Your task to perform on an android device: open a new tab in the chrome app Image 0: 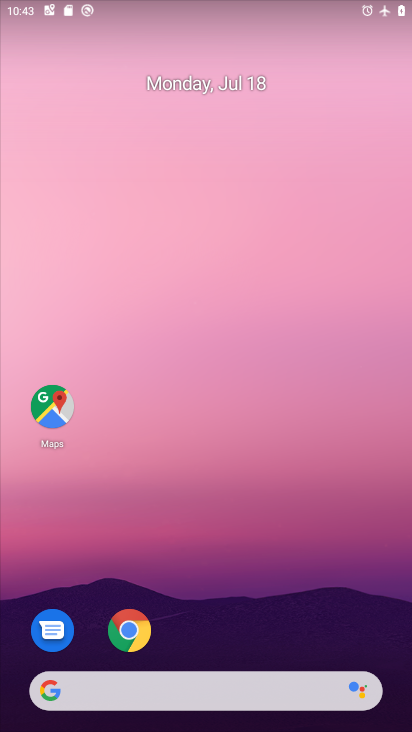
Step 0: click (119, 623)
Your task to perform on an android device: open a new tab in the chrome app Image 1: 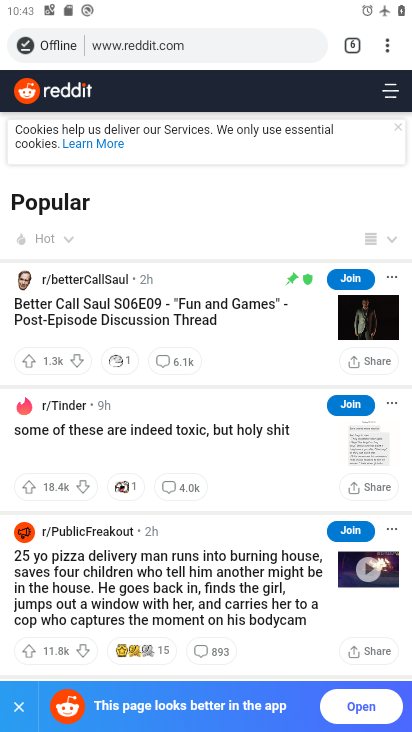
Step 1: click (351, 33)
Your task to perform on an android device: open a new tab in the chrome app Image 2: 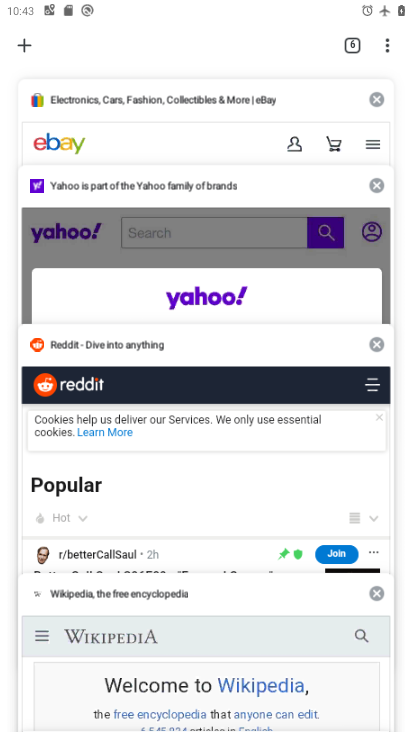
Step 2: click (35, 42)
Your task to perform on an android device: open a new tab in the chrome app Image 3: 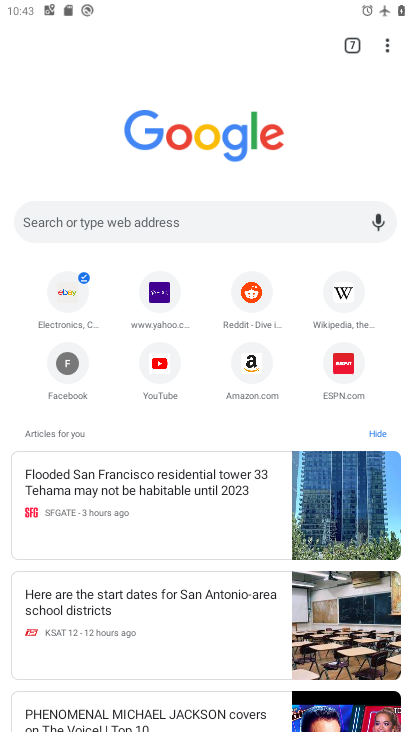
Step 3: task complete